Your task to perform on an android device: turn off airplane mode Image 0: 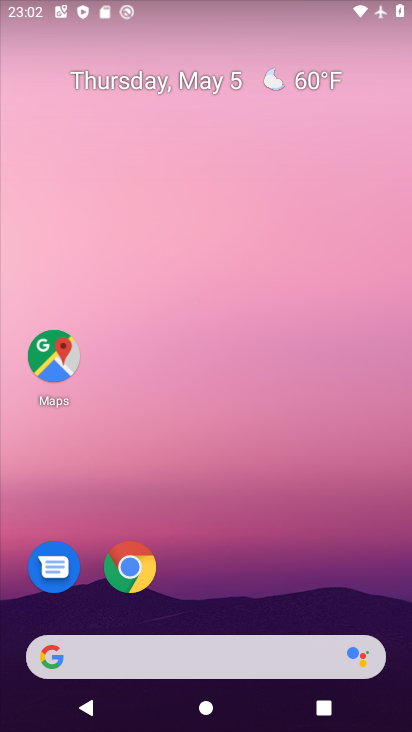
Step 0: drag from (217, 566) to (190, 240)
Your task to perform on an android device: turn off airplane mode Image 1: 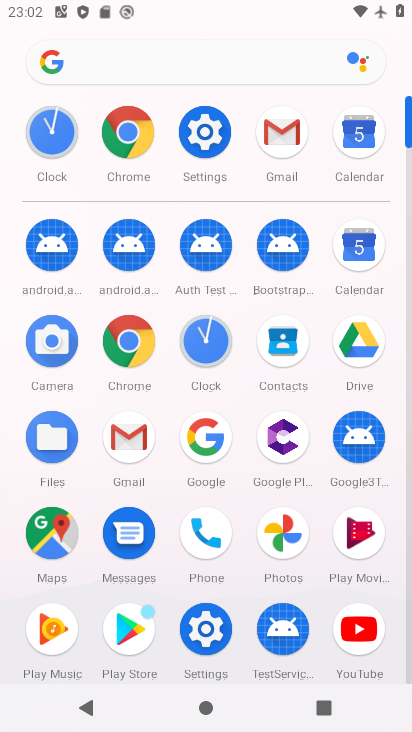
Step 1: click (207, 144)
Your task to perform on an android device: turn off airplane mode Image 2: 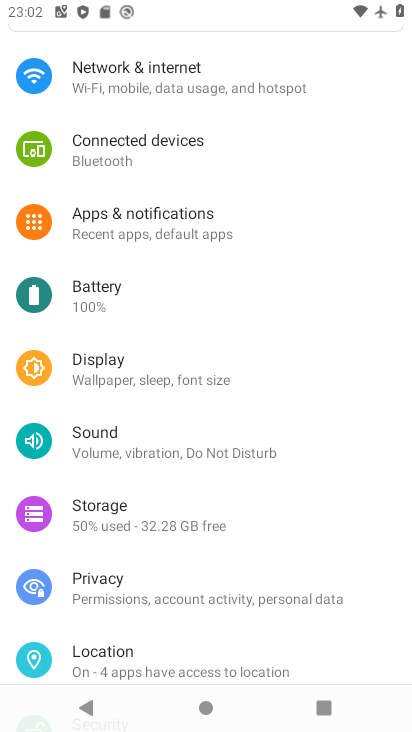
Step 2: drag from (197, 132) to (230, 493)
Your task to perform on an android device: turn off airplane mode Image 3: 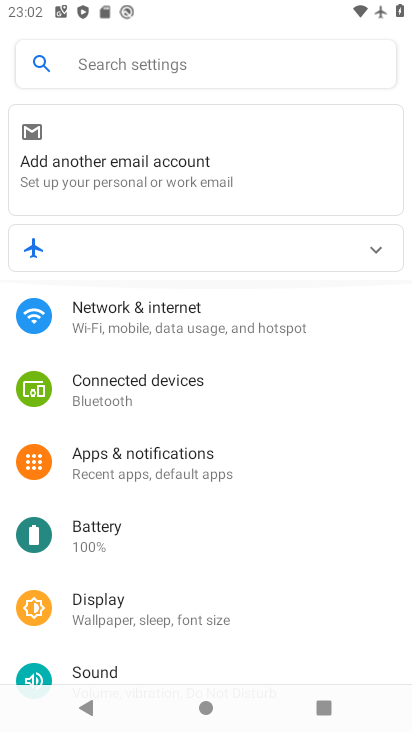
Step 3: click (175, 324)
Your task to perform on an android device: turn off airplane mode Image 4: 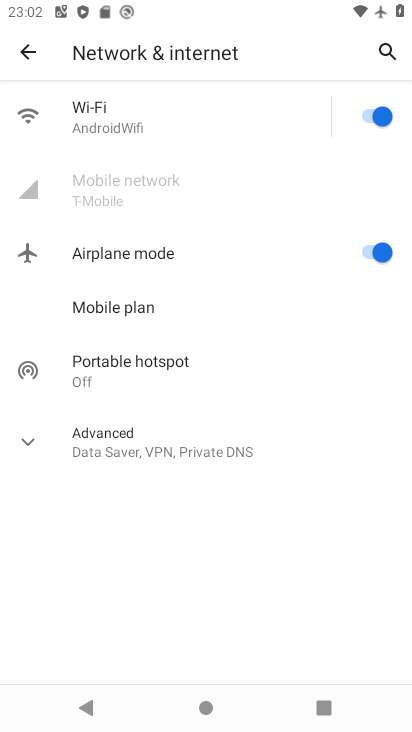
Step 4: click (363, 255)
Your task to perform on an android device: turn off airplane mode Image 5: 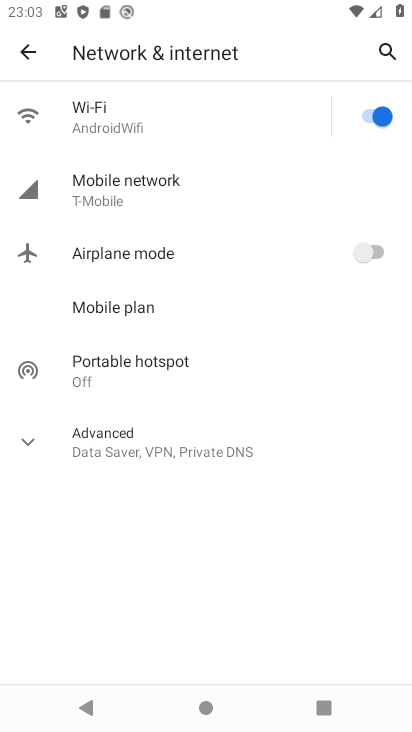
Step 5: task complete